Your task to perform on an android device: read, delete, or share a saved page in the chrome app Image 0: 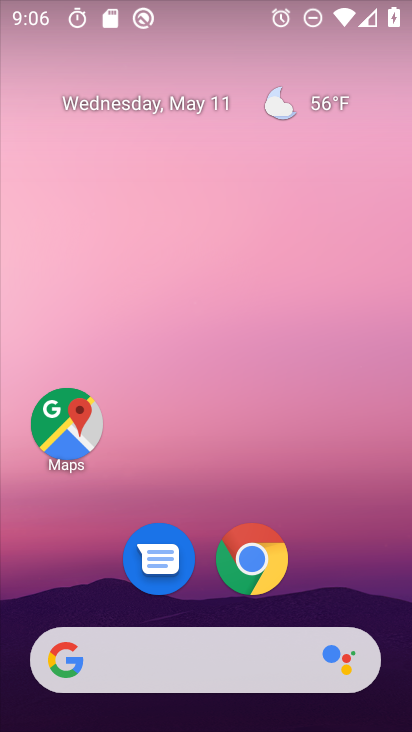
Step 0: click (265, 555)
Your task to perform on an android device: read, delete, or share a saved page in the chrome app Image 1: 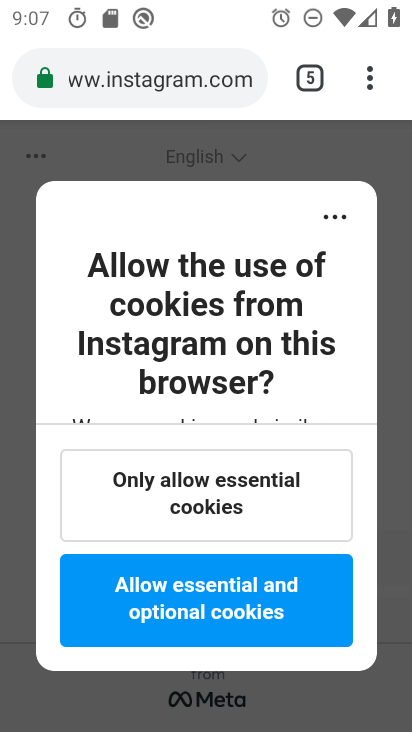
Step 1: click (376, 77)
Your task to perform on an android device: read, delete, or share a saved page in the chrome app Image 2: 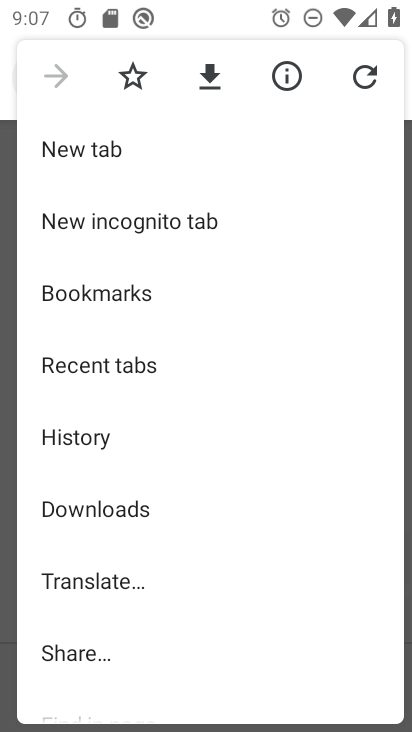
Step 2: click (81, 503)
Your task to perform on an android device: read, delete, or share a saved page in the chrome app Image 3: 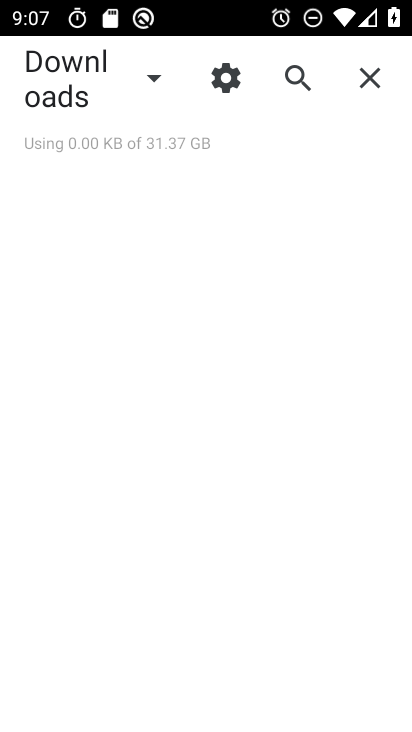
Step 3: click (136, 80)
Your task to perform on an android device: read, delete, or share a saved page in the chrome app Image 4: 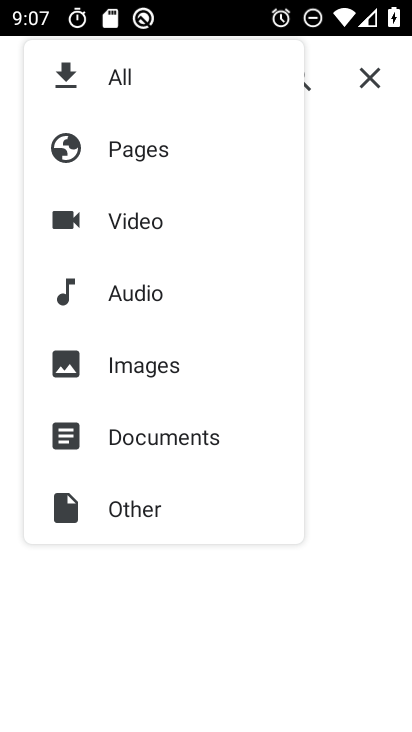
Step 4: click (131, 150)
Your task to perform on an android device: read, delete, or share a saved page in the chrome app Image 5: 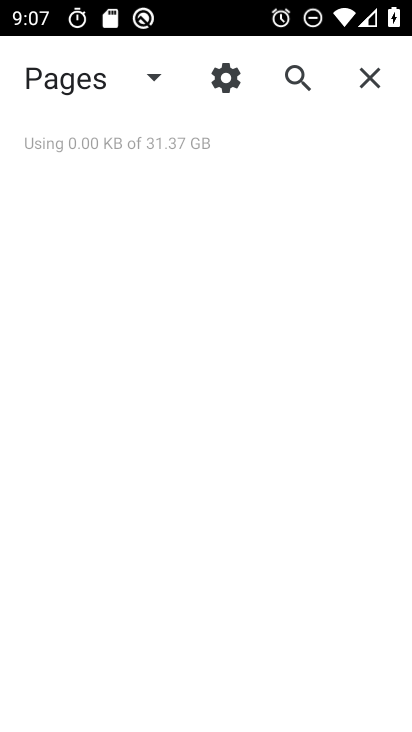
Step 5: task complete